Your task to perform on an android device: Search for vegetarian restaurants on Maps Image 0: 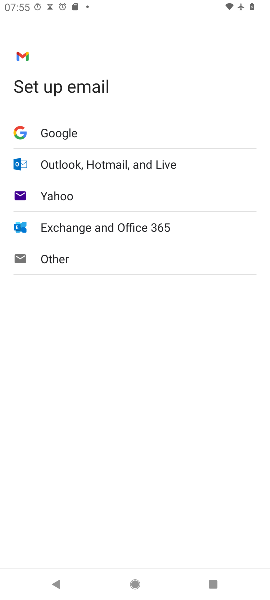
Step 0: press home button
Your task to perform on an android device: Search for vegetarian restaurants on Maps Image 1: 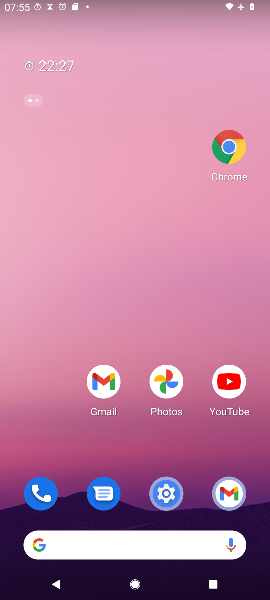
Step 1: drag from (133, 511) to (87, 176)
Your task to perform on an android device: Search for vegetarian restaurants on Maps Image 2: 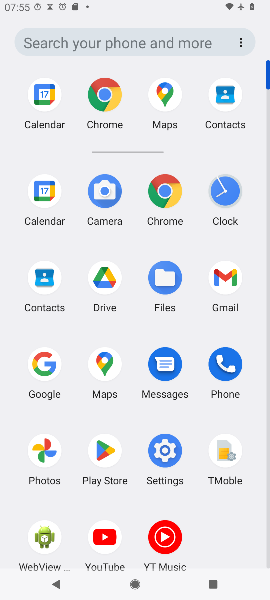
Step 2: click (164, 97)
Your task to perform on an android device: Search for vegetarian restaurants on Maps Image 3: 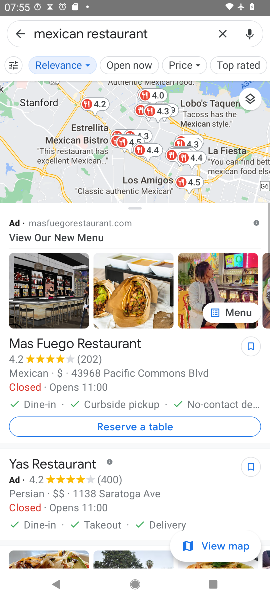
Step 3: click (224, 34)
Your task to perform on an android device: Search for vegetarian restaurants on Maps Image 4: 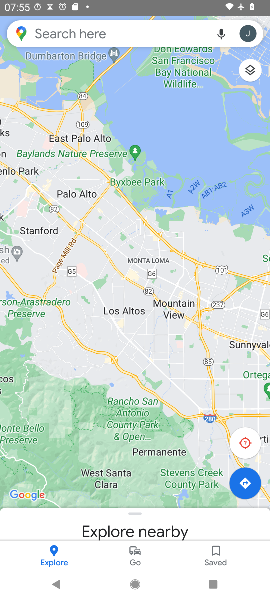
Step 4: click (94, 37)
Your task to perform on an android device: Search for vegetarian restaurants on Maps Image 5: 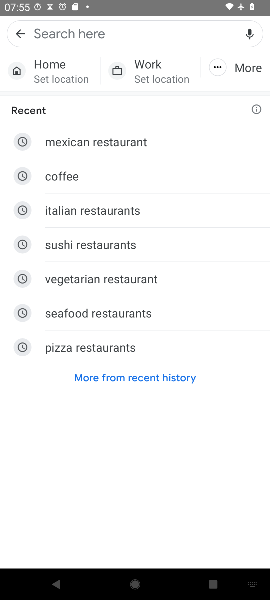
Step 5: click (90, 282)
Your task to perform on an android device: Search for vegetarian restaurants on Maps Image 6: 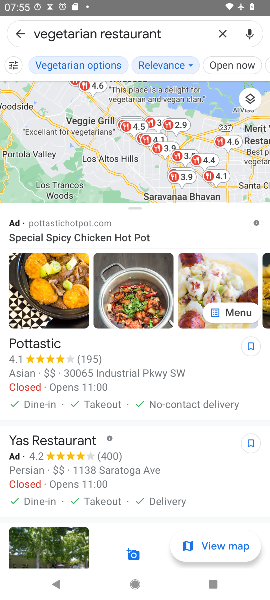
Step 6: task complete